Your task to perform on an android device: change timer sound Image 0: 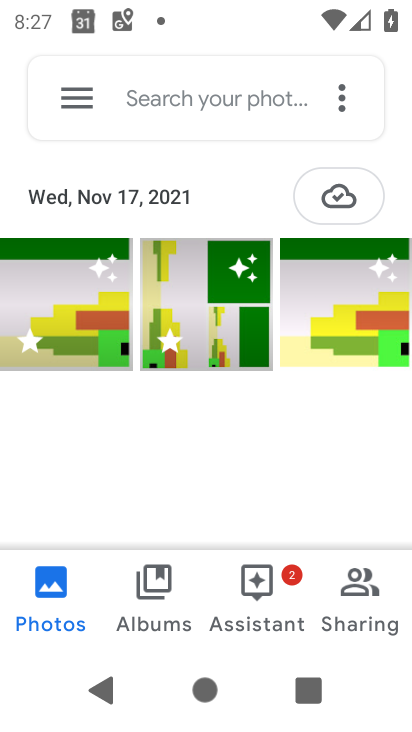
Step 0: press home button
Your task to perform on an android device: change timer sound Image 1: 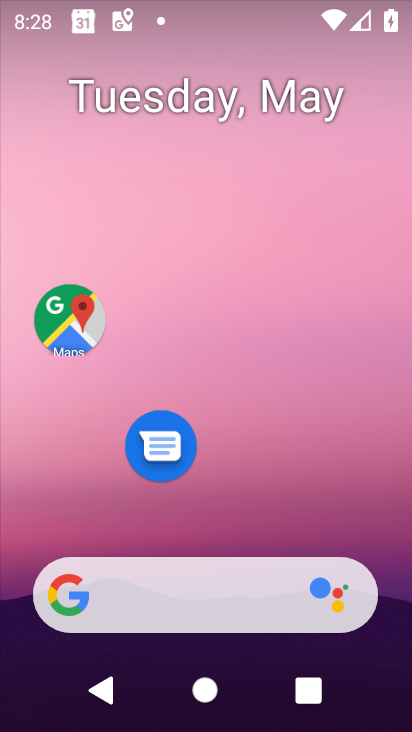
Step 1: drag from (209, 534) to (164, 58)
Your task to perform on an android device: change timer sound Image 2: 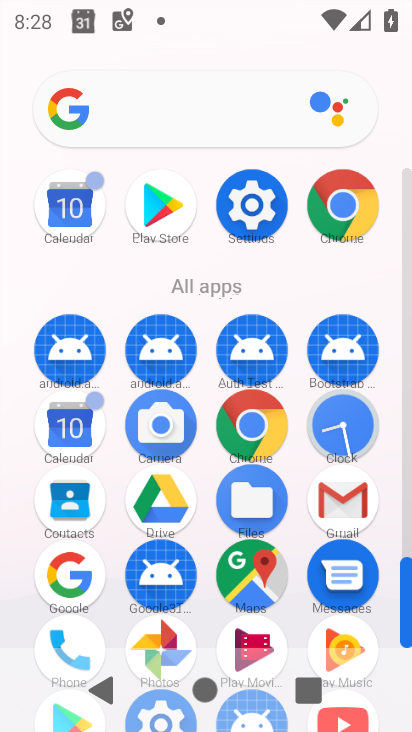
Step 2: click (350, 431)
Your task to perform on an android device: change timer sound Image 3: 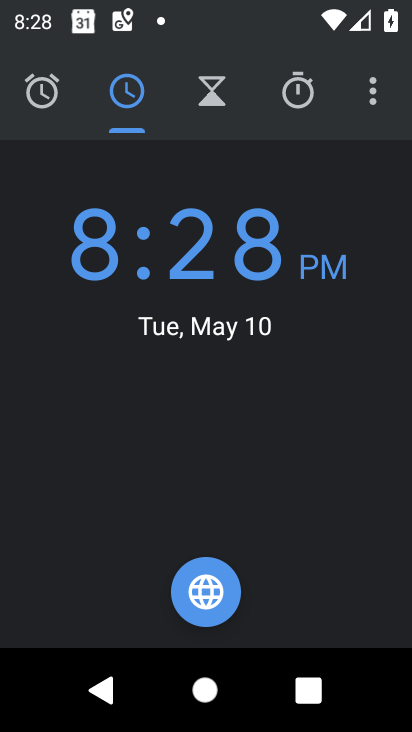
Step 3: click (379, 98)
Your task to perform on an android device: change timer sound Image 4: 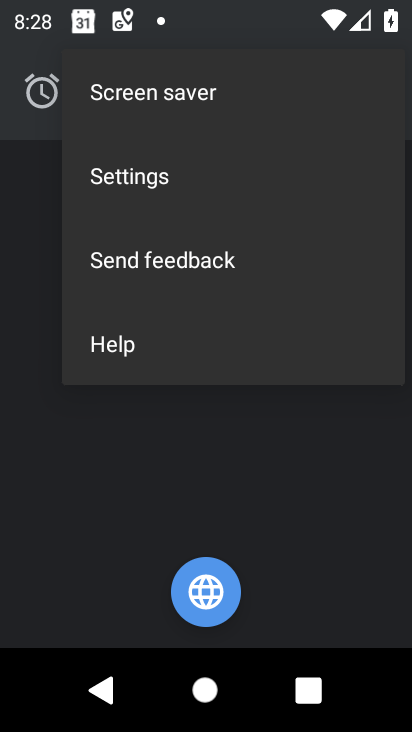
Step 4: click (138, 182)
Your task to perform on an android device: change timer sound Image 5: 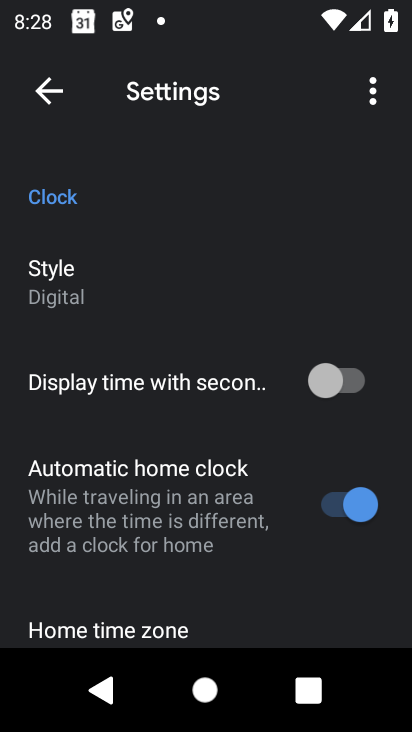
Step 5: drag from (179, 509) to (130, 102)
Your task to perform on an android device: change timer sound Image 6: 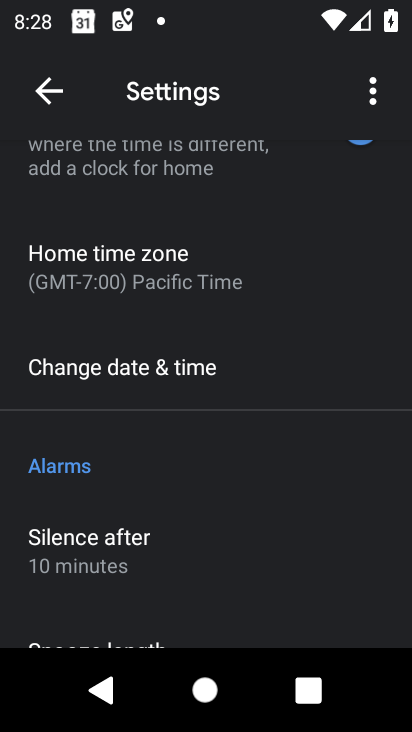
Step 6: drag from (128, 505) to (79, 132)
Your task to perform on an android device: change timer sound Image 7: 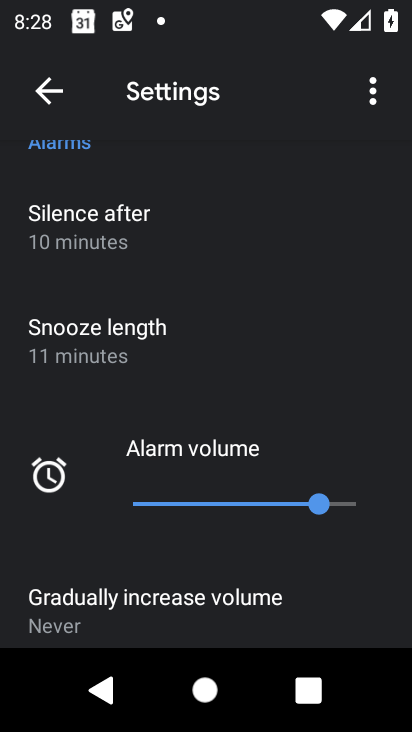
Step 7: drag from (79, 154) to (94, 515)
Your task to perform on an android device: change timer sound Image 8: 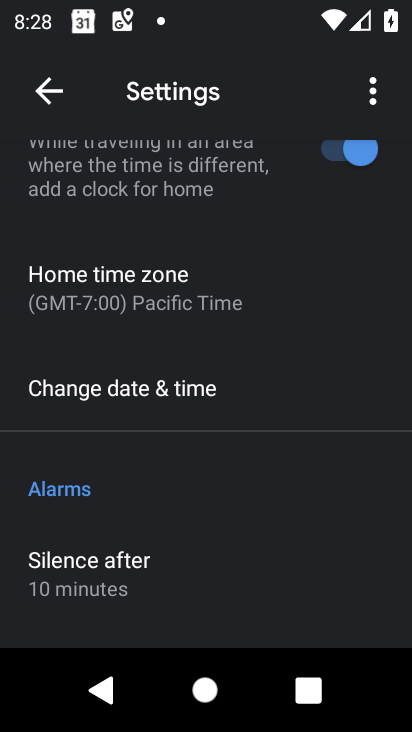
Step 8: drag from (116, 311) to (103, 645)
Your task to perform on an android device: change timer sound Image 9: 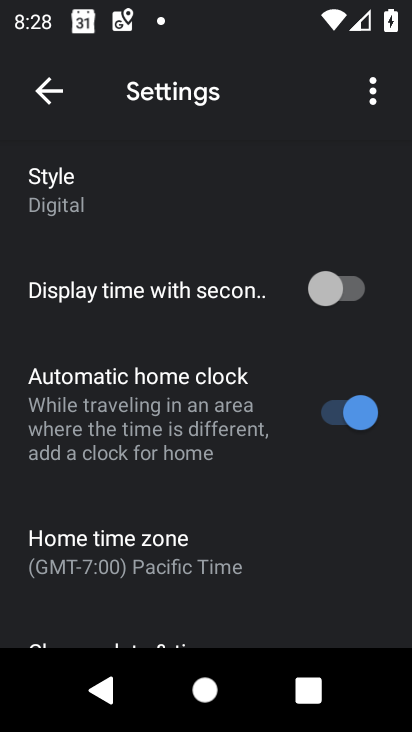
Step 9: drag from (126, 280) to (119, 109)
Your task to perform on an android device: change timer sound Image 10: 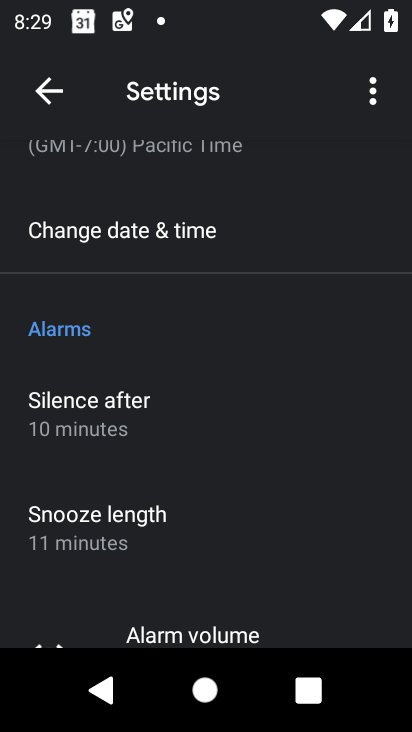
Step 10: drag from (145, 545) to (93, 62)
Your task to perform on an android device: change timer sound Image 11: 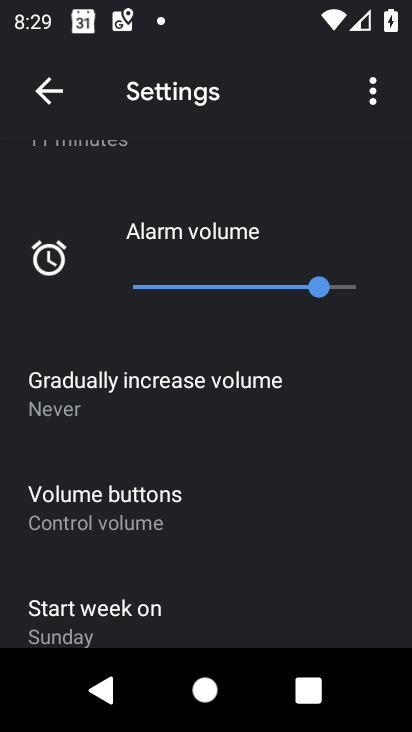
Step 11: drag from (131, 556) to (131, 170)
Your task to perform on an android device: change timer sound Image 12: 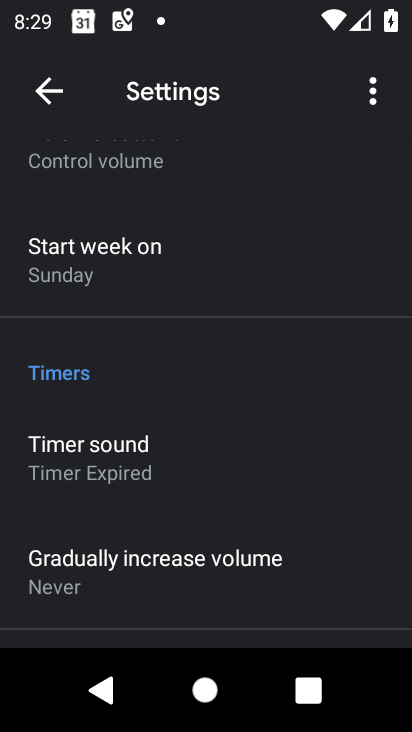
Step 12: click (111, 480)
Your task to perform on an android device: change timer sound Image 13: 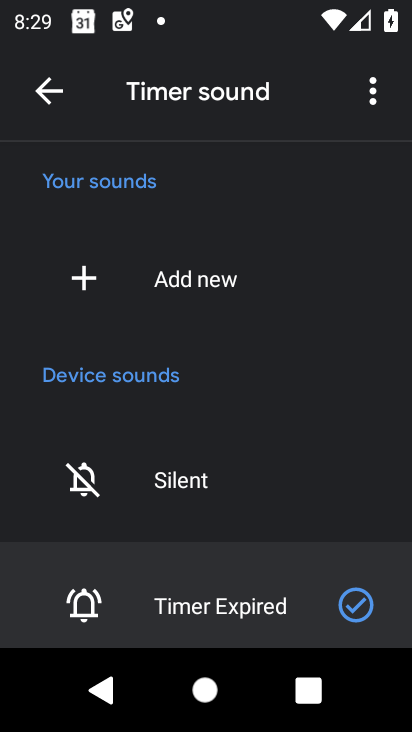
Step 13: drag from (186, 587) to (173, 65)
Your task to perform on an android device: change timer sound Image 14: 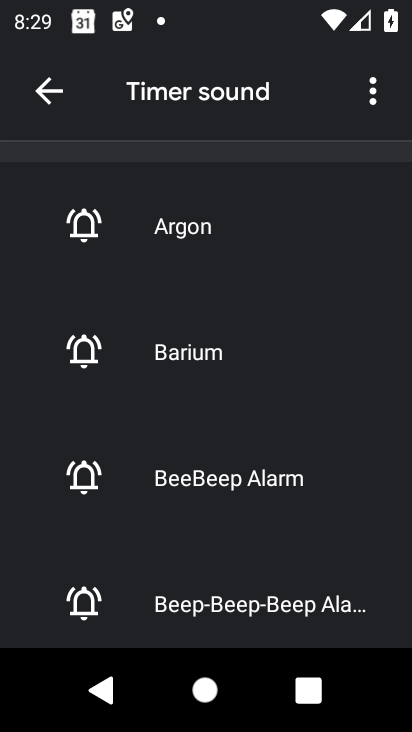
Step 14: click (228, 359)
Your task to perform on an android device: change timer sound Image 15: 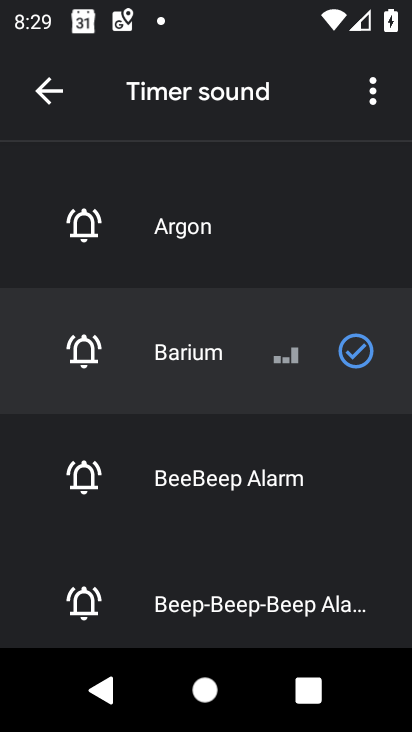
Step 15: task complete